Your task to perform on an android device: Open Chrome and go to the settings page Image 0: 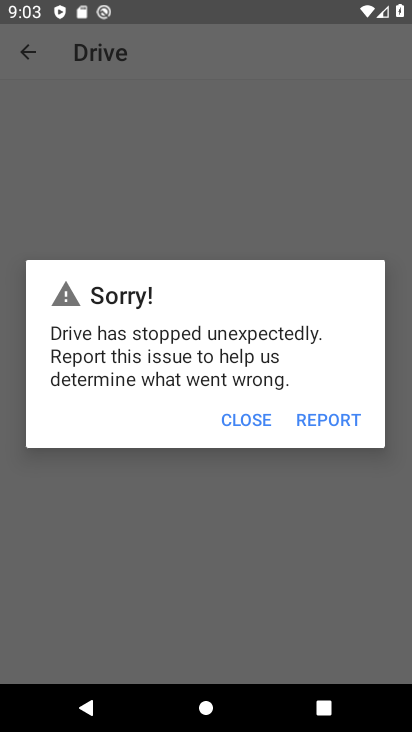
Step 0: press home button
Your task to perform on an android device: Open Chrome and go to the settings page Image 1: 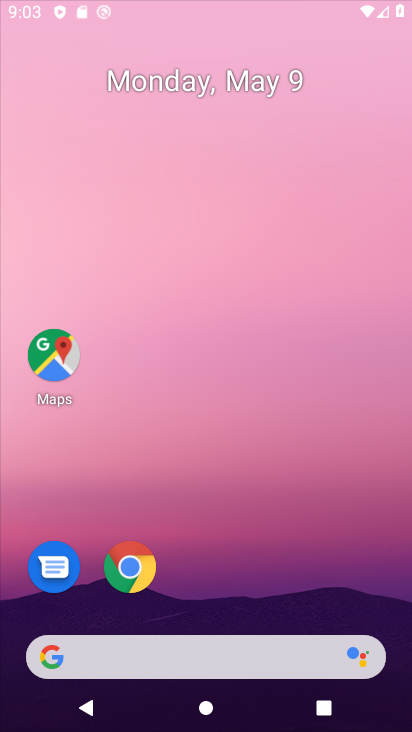
Step 1: drag from (159, 645) to (259, 118)
Your task to perform on an android device: Open Chrome and go to the settings page Image 2: 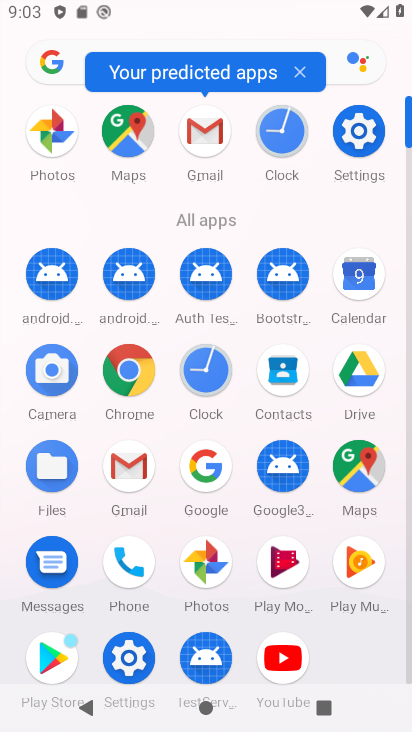
Step 2: click (106, 360)
Your task to perform on an android device: Open Chrome and go to the settings page Image 3: 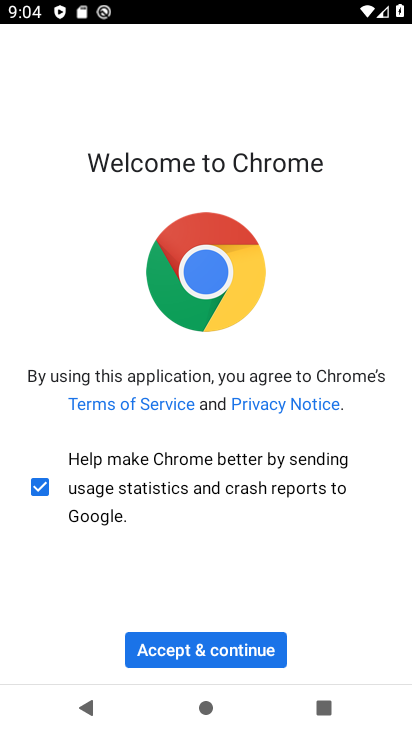
Step 3: click (199, 653)
Your task to perform on an android device: Open Chrome and go to the settings page Image 4: 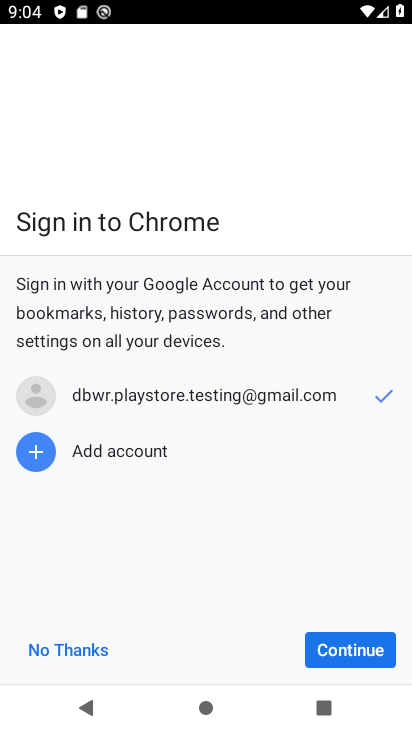
Step 4: click (74, 653)
Your task to perform on an android device: Open Chrome and go to the settings page Image 5: 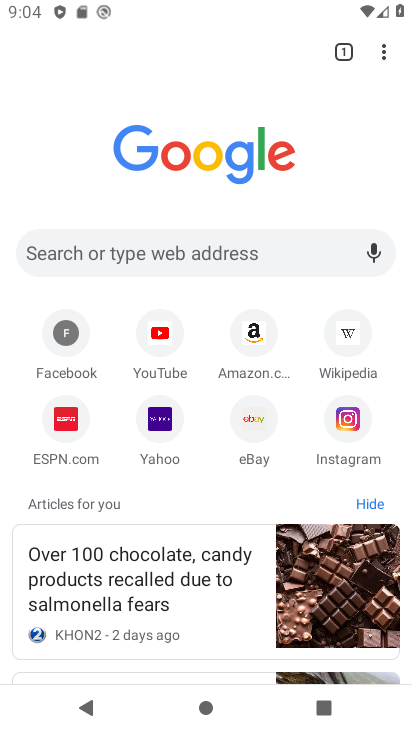
Step 5: task complete